Your task to perform on an android device: set the timer Image 0: 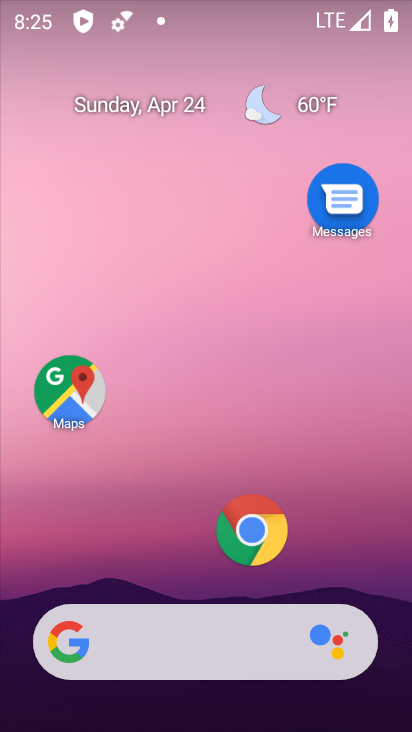
Step 0: drag from (109, 571) to (236, 149)
Your task to perform on an android device: set the timer Image 1: 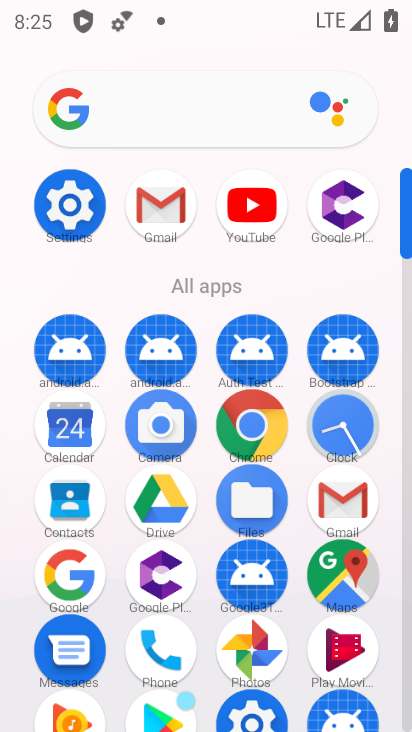
Step 1: click (346, 442)
Your task to perform on an android device: set the timer Image 2: 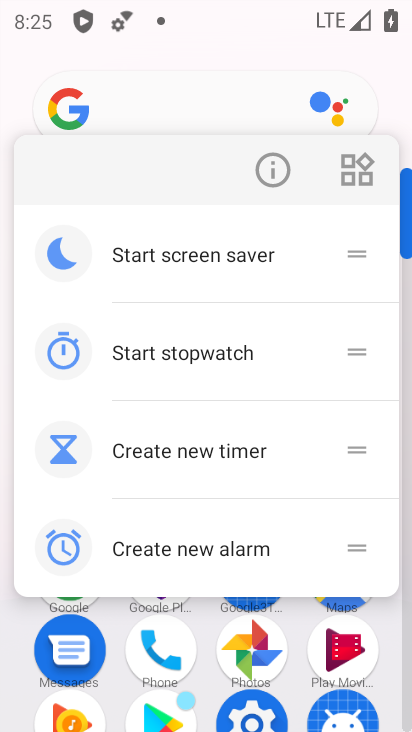
Step 2: press back button
Your task to perform on an android device: set the timer Image 3: 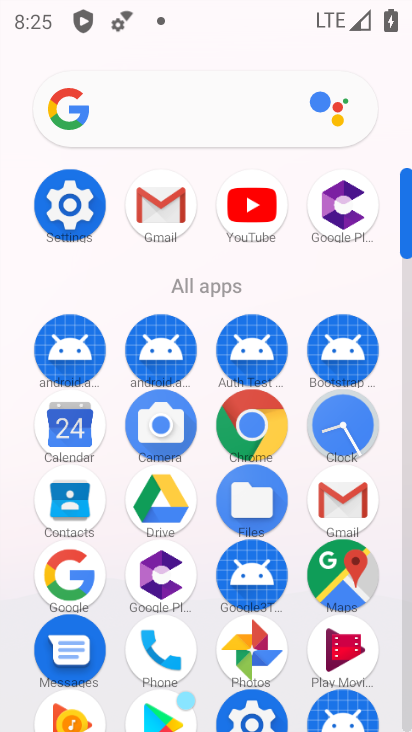
Step 3: click (356, 419)
Your task to perform on an android device: set the timer Image 4: 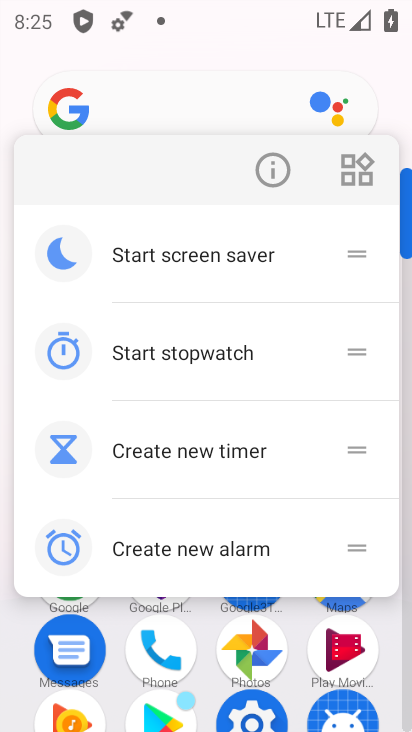
Step 4: press back button
Your task to perform on an android device: set the timer Image 5: 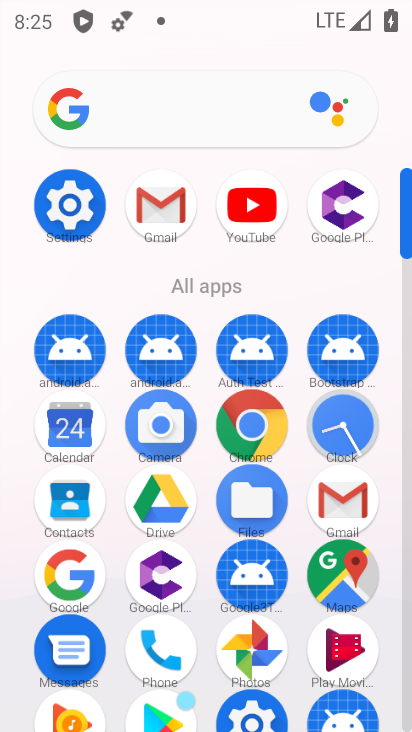
Step 5: click (338, 434)
Your task to perform on an android device: set the timer Image 6: 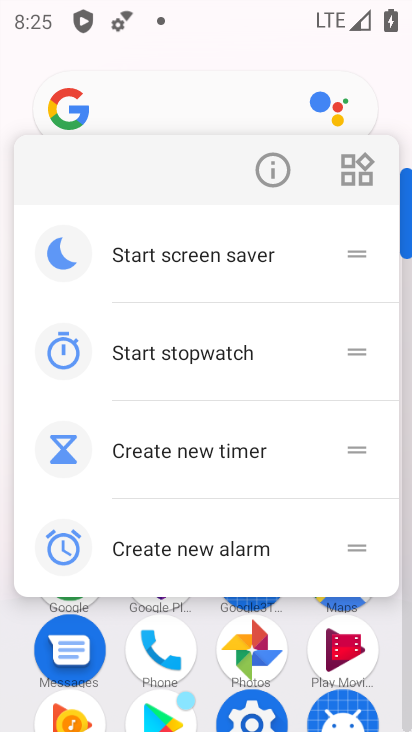
Step 6: press back button
Your task to perform on an android device: set the timer Image 7: 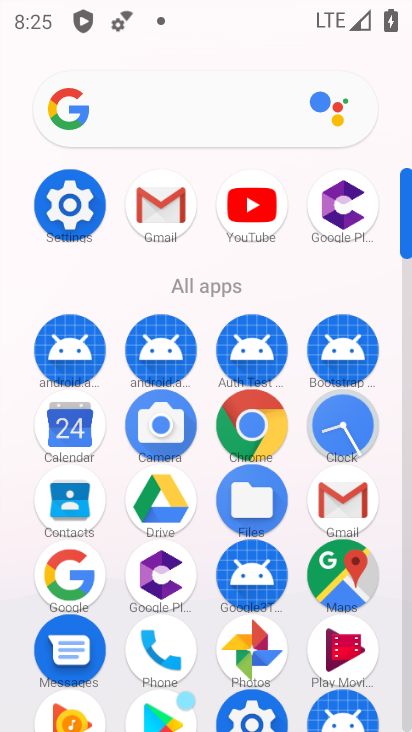
Step 7: click (364, 445)
Your task to perform on an android device: set the timer Image 8: 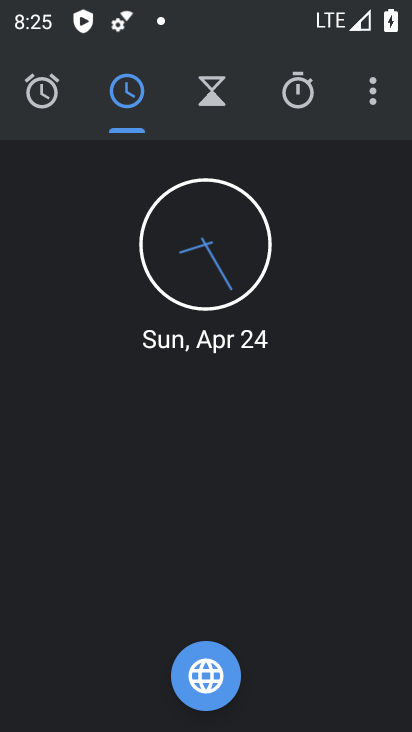
Step 8: click (202, 86)
Your task to perform on an android device: set the timer Image 9: 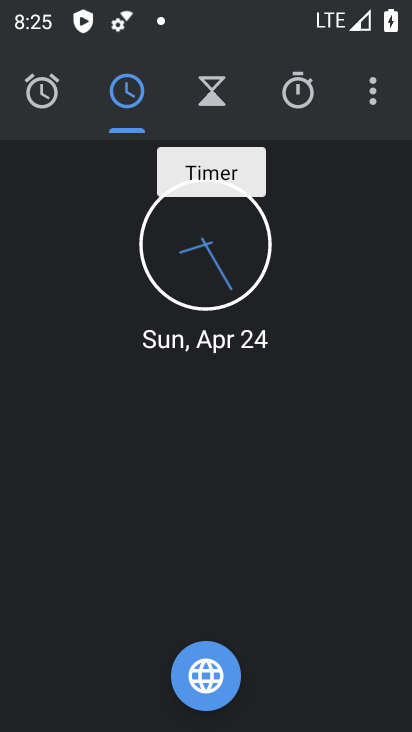
Step 9: click (209, 91)
Your task to perform on an android device: set the timer Image 10: 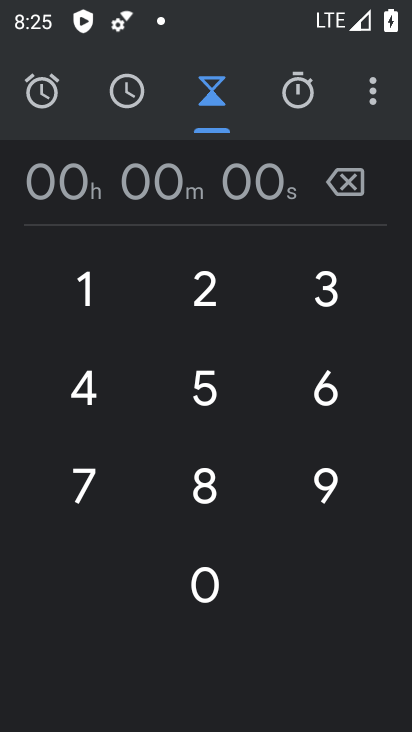
Step 10: click (311, 278)
Your task to perform on an android device: set the timer Image 11: 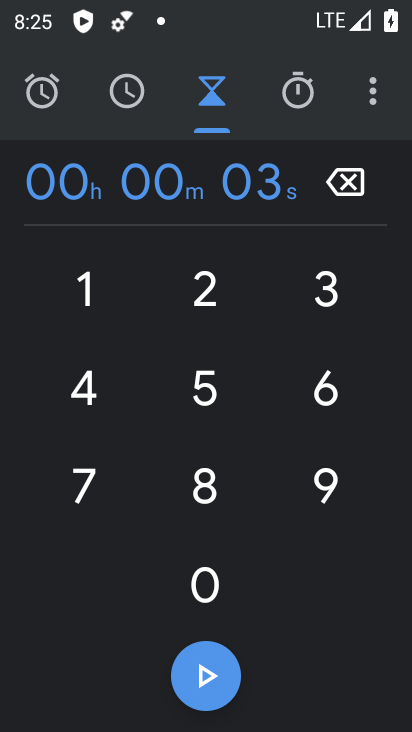
Step 11: click (215, 657)
Your task to perform on an android device: set the timer Image 12: 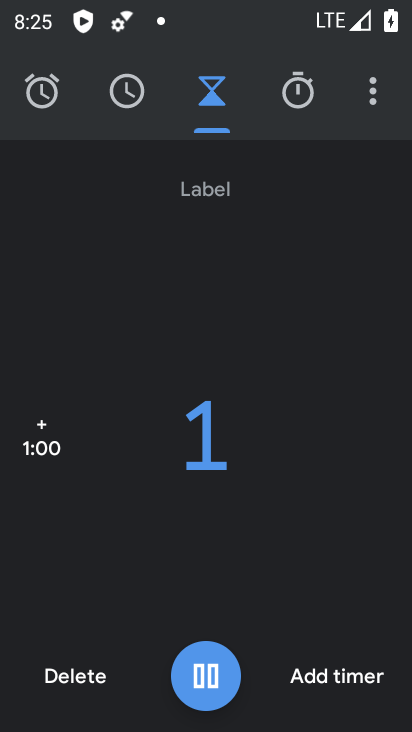
Step 12: task complete